Your task to perform on an android device: Do I have any events today? Image 0: 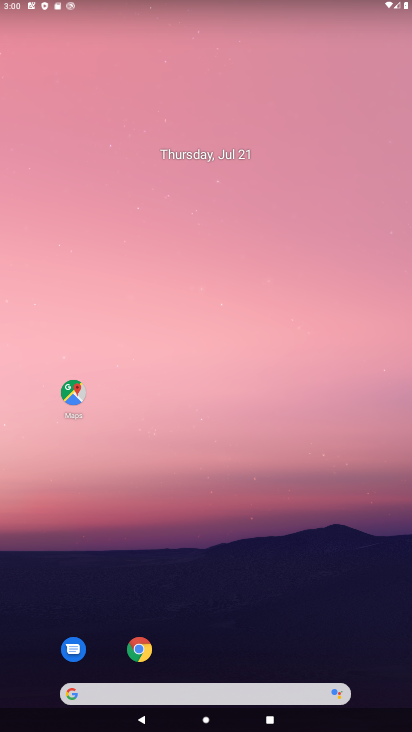
Step 0: drag from (322, 621) to (225, 2)
Your task to perform on an android device: Do I have any events today? Image 1: 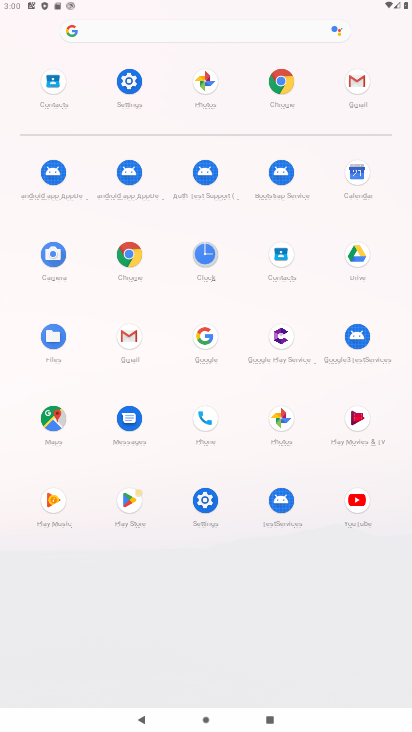
Step 1: click (233, 29)
Your task to perform on an android device: Do I have any events today? Image 2: 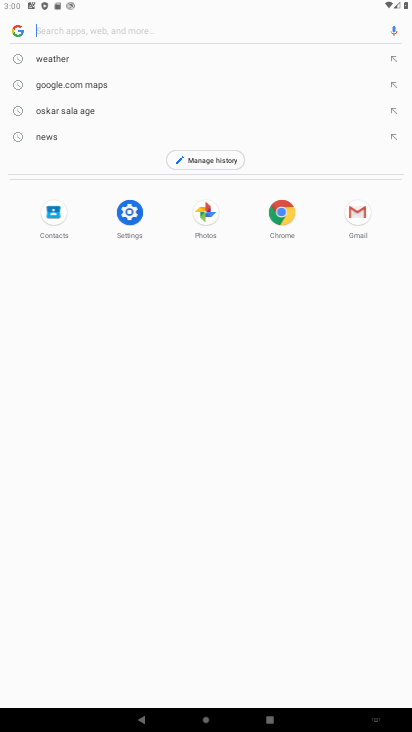
Step 2: click (50, 223)
Your task to perform on an android device: Do I have any events today? Image 3: 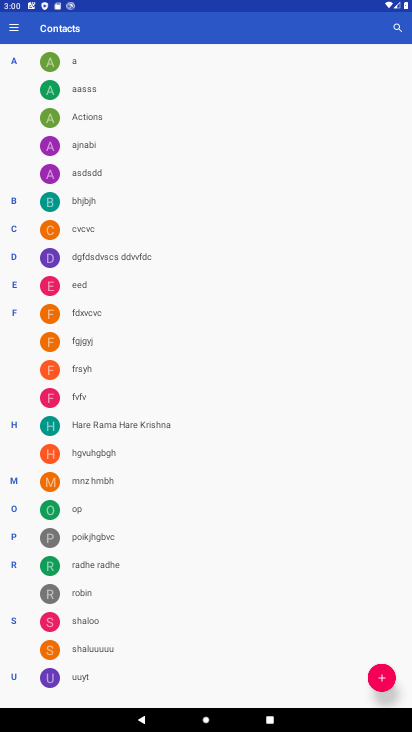
Step 3: press home button
Your task to perform on an android device: Do I have any events today? Image 4: 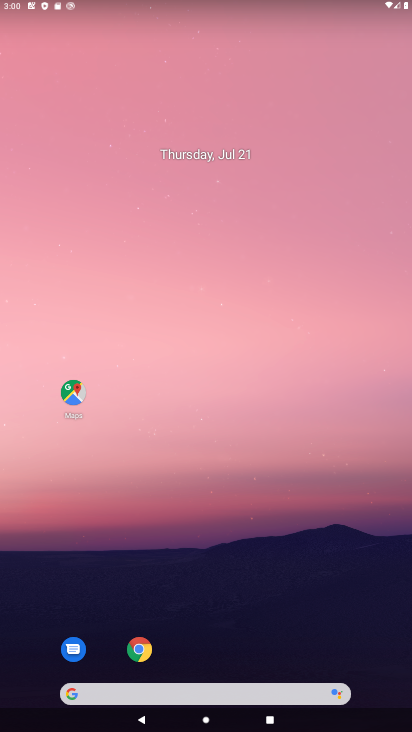
Step 4: drag from (273, 647) to (238, 59)
Your task to perform on an android device: Do I have any events today? Image 5: 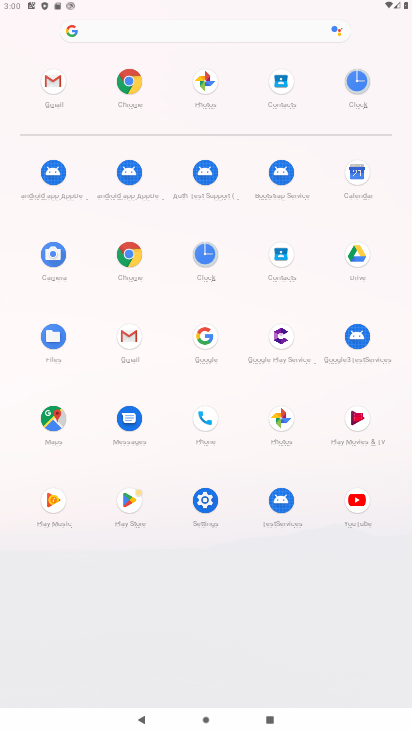
Step 5: click (241, 41)
Your task to perform on an android device: Do I have any events today? Image 6: 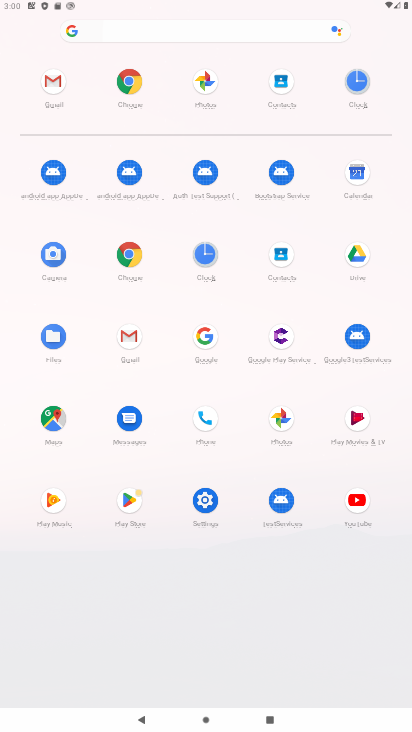
Step 6: task complete